Your task to perform on an android device: create a new album in the google photos Image 0: 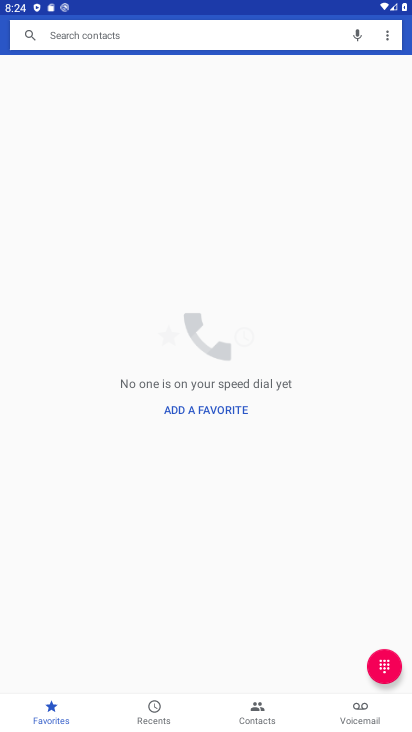
Step 0: press home button
Your task to perform on an android device: create a new album in the google photos Image 1: 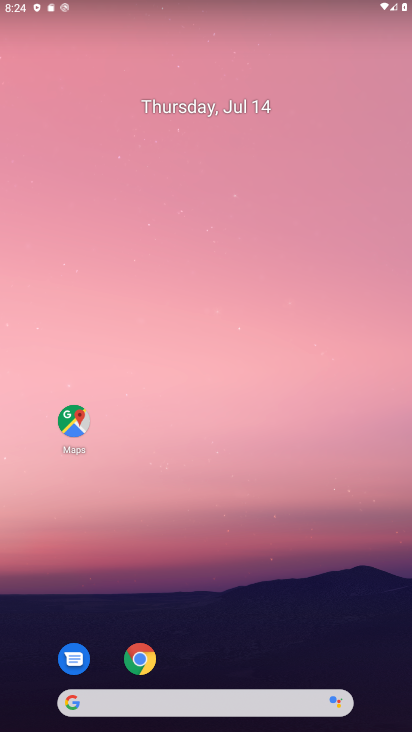
Step 1: drag from (195, 665) to (400, 229)
Your task to perform on an android device: create a new album in the google photos Image 2: 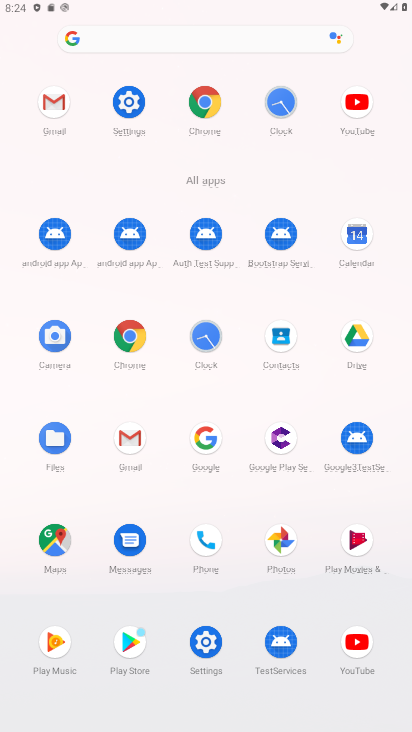
Step 2: click (291, 535)
Your task to perform on an android device: create a new album in the google photos Image 3: 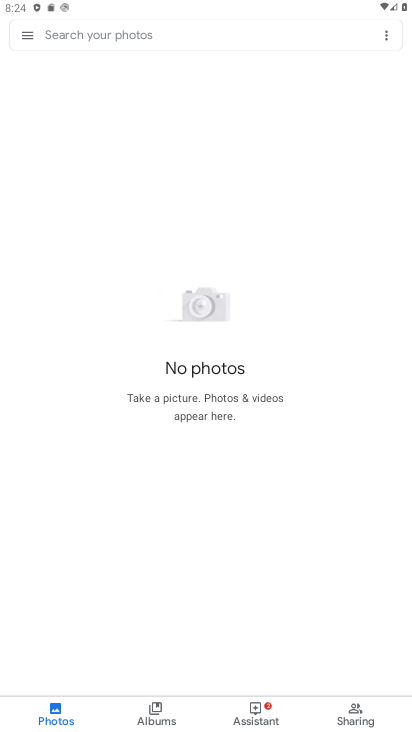
Step 3: drag from (281, 222) to (262, 455)
Your task to perform on an android device: create a new album in the google photos Image 4: 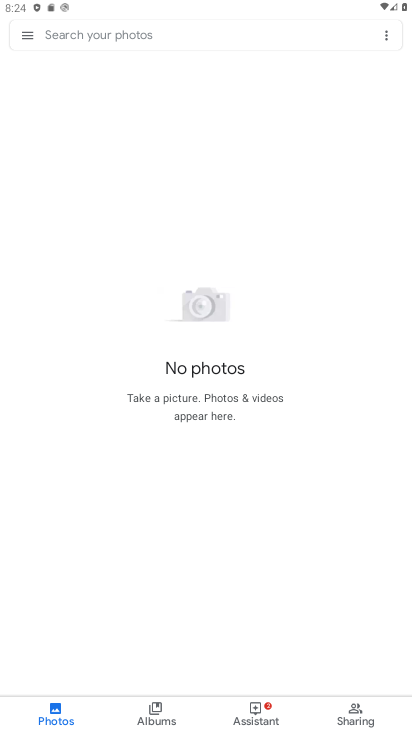
Step 4: click (141, 712)
Your task to perform on an android device: create a new album in the google photos Image 5: 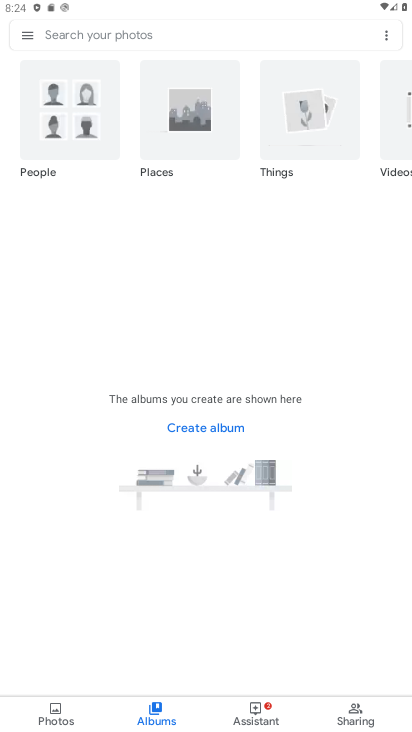
Step 5: click (210, 427)
Your task to perform on an android device: create a new album in the google photos Image 6: 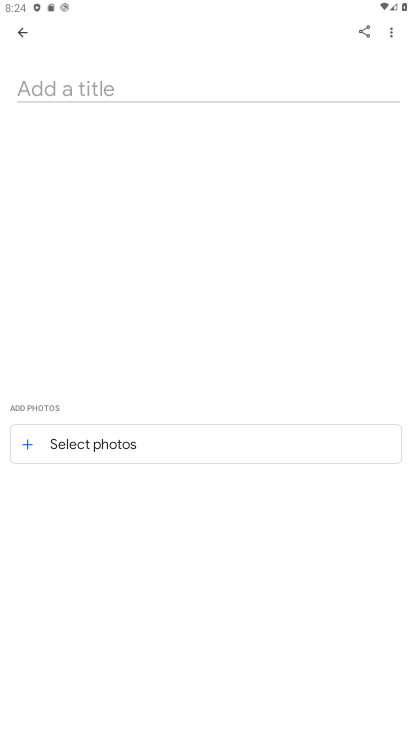
Step 6: click (29, 445)
Your task to perform on an android device: create a new album in the google photos Image 7: 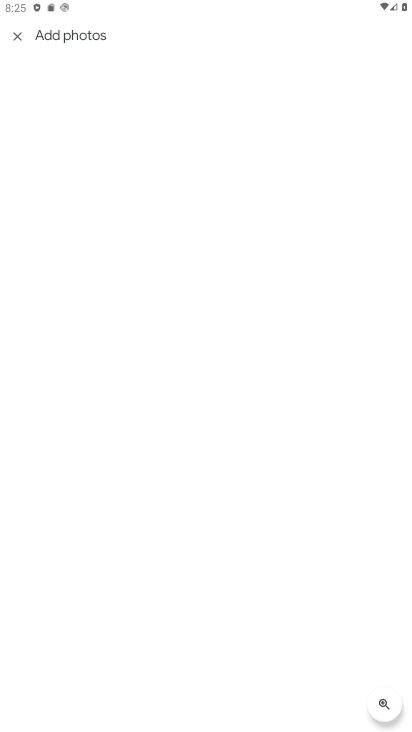
Step 7: task complete